Your task to perform on an android device: install app "Indeed Job Search" Image 0: 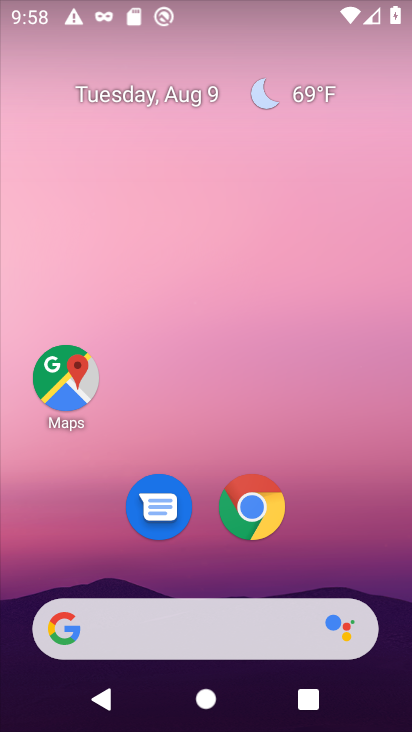
Step 0: drag from (171, 632) to (186, 167)
Your task to perform on an android device: install app "Indeed Job Search" Image 1: 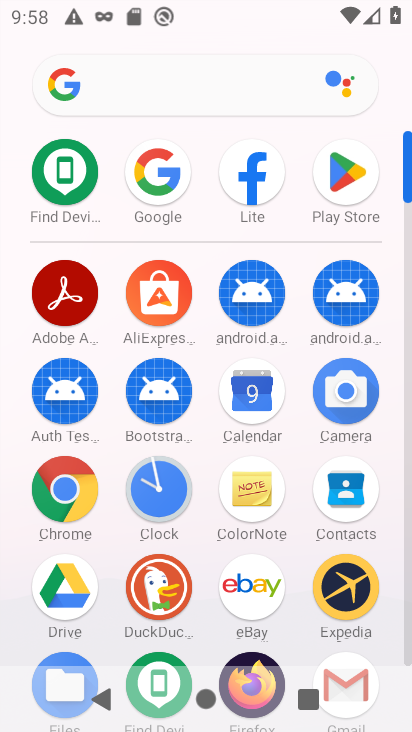
Step 1: click (348, 173)
Your task to perform on an android device: install app "Indeed Job Search" Image 2: 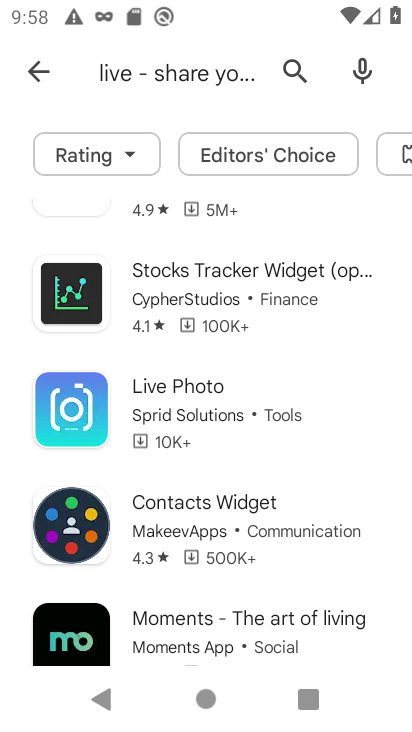
Step 2: click (295, 69)
Your task to perform on an android device: install app "Indeed Job Search" Image 3: 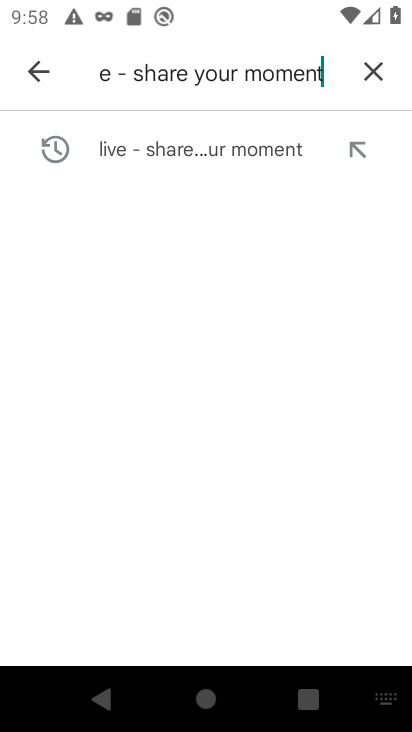
Step 3: click (374, 72)
Your task to perform on an android device: install app "Indeed Job Search" Image 4: 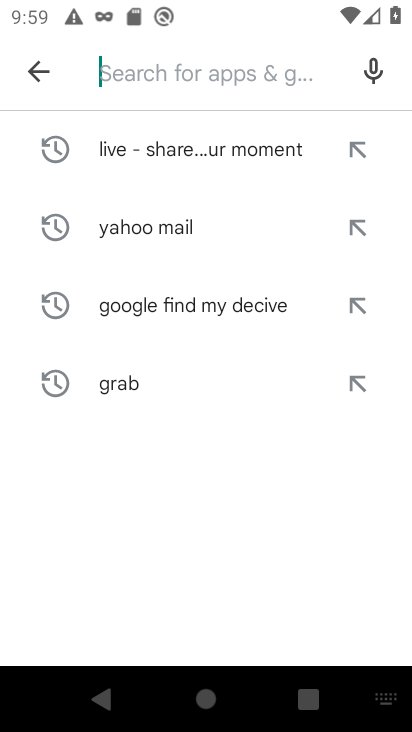
Step 4: type "Indeed Job Search"
Your task to perform on an android device: install app "Indeed Job Search" Image 5: 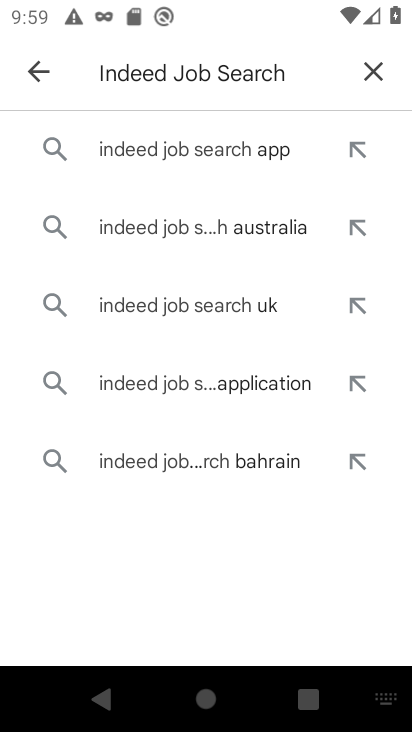
Step 5: click (133, 153)
Your task to perform on an android device: install app "Indeed Job Search" Image 6: 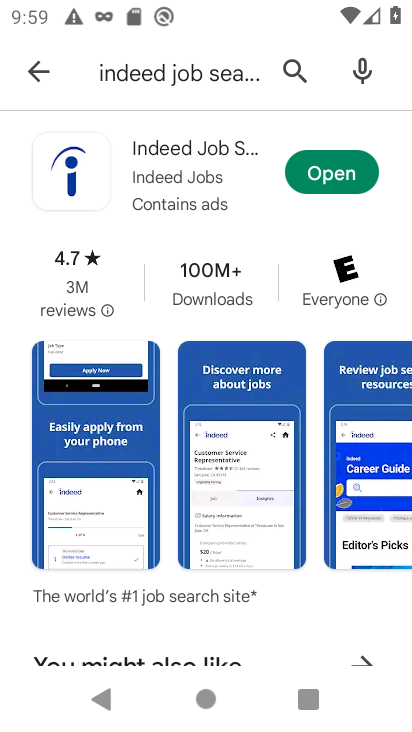
Step 6: click (203, 150)
Your task to perform on an android device: install app "Indeed Job Search" Image 7: 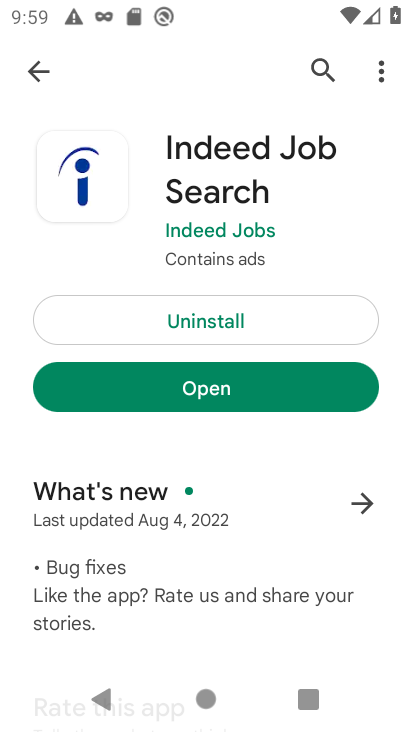
Step 7: task complete